Your task to perform on an android device: Add dell xps to the cart on bestbuy, then select checkout. Image 0: 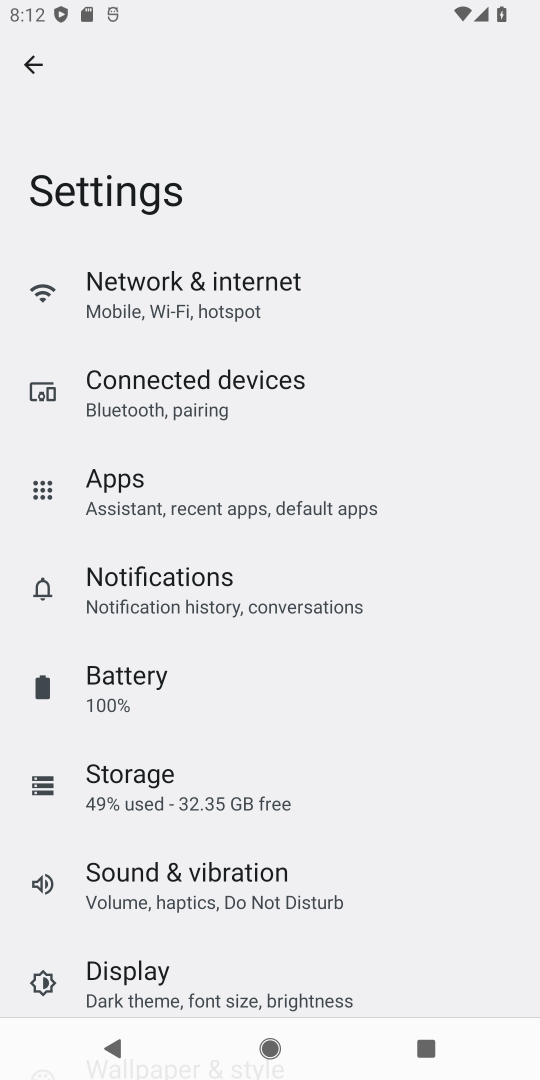
Step 0: press home button
Your task to perform on an android device: Add dell xps to the cart on bestbuy, then select checkout. Image 1: 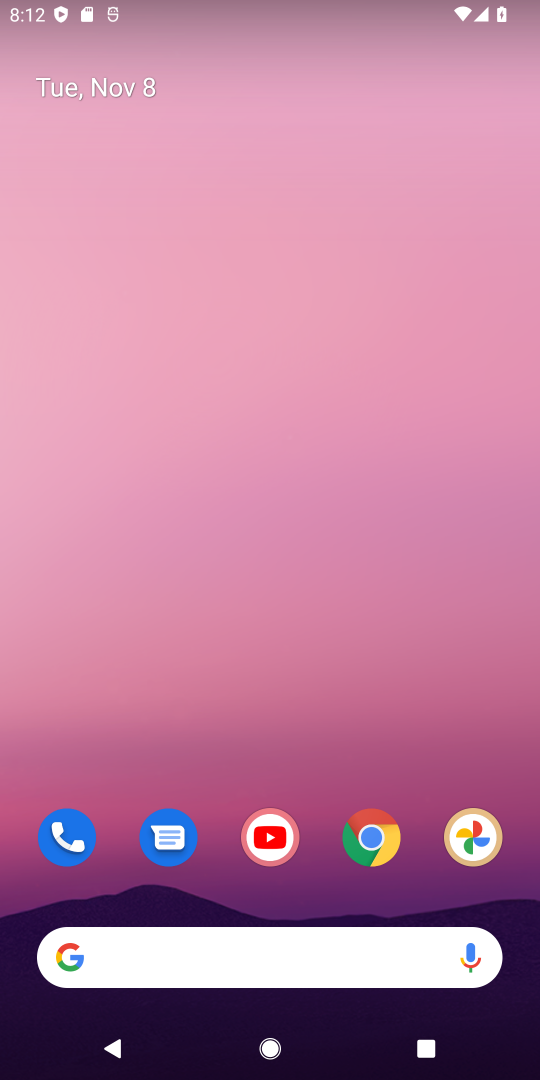
Step 1: click (385, 836)
Your task to perform on an android device: Add dell xps to the cart on bestbuy, then select checkout. Image 2: 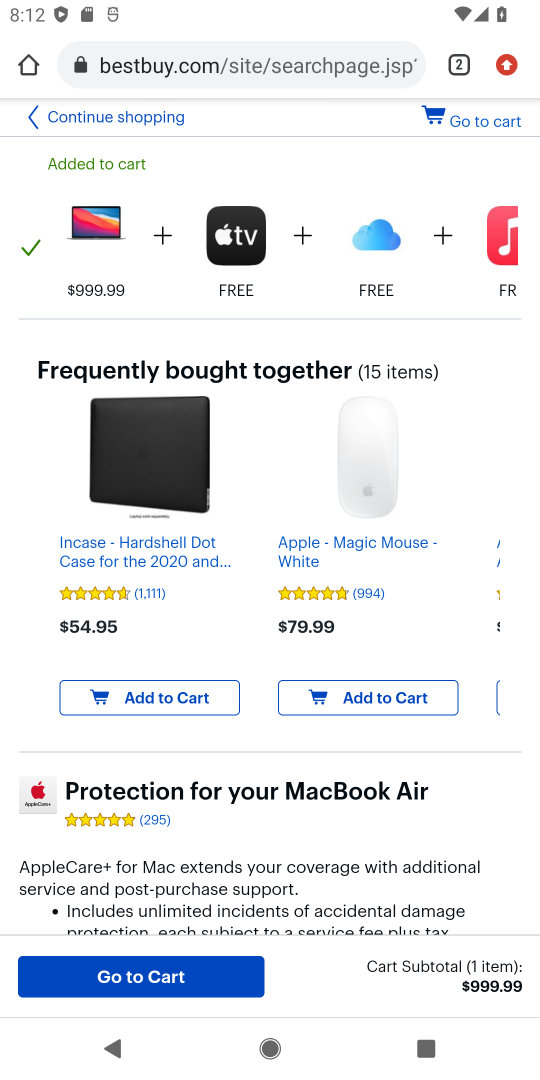
Step 2: click (461, 65)
Your task to perform on an android device: Add dell xps to the cart on bestbuy, then select checkout. Image 3: 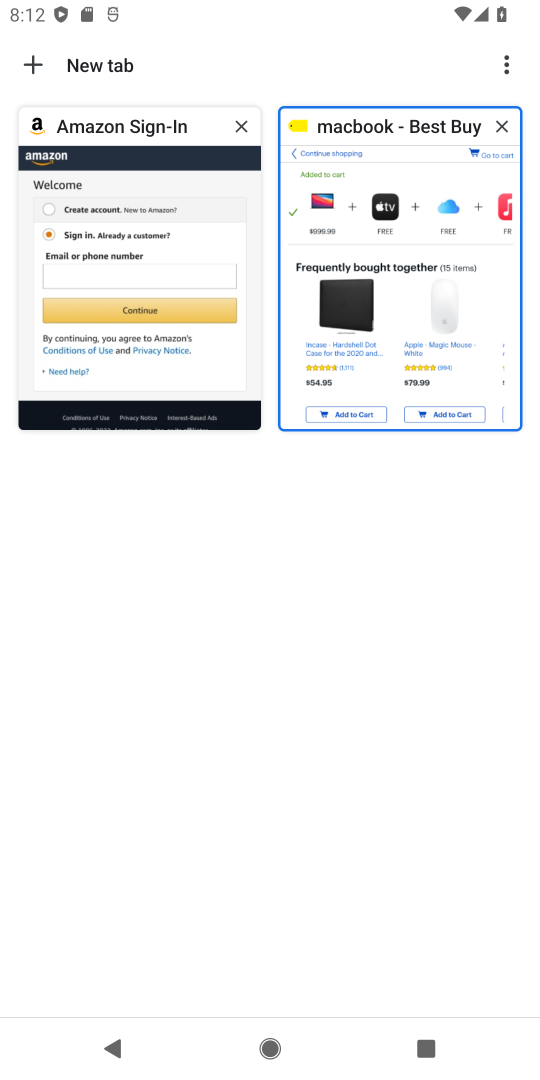
Step 3: click (397, 207)
Your task to perform on an android device: Add dell xps to the cart on bestbuy, then select checkout. Image 4: 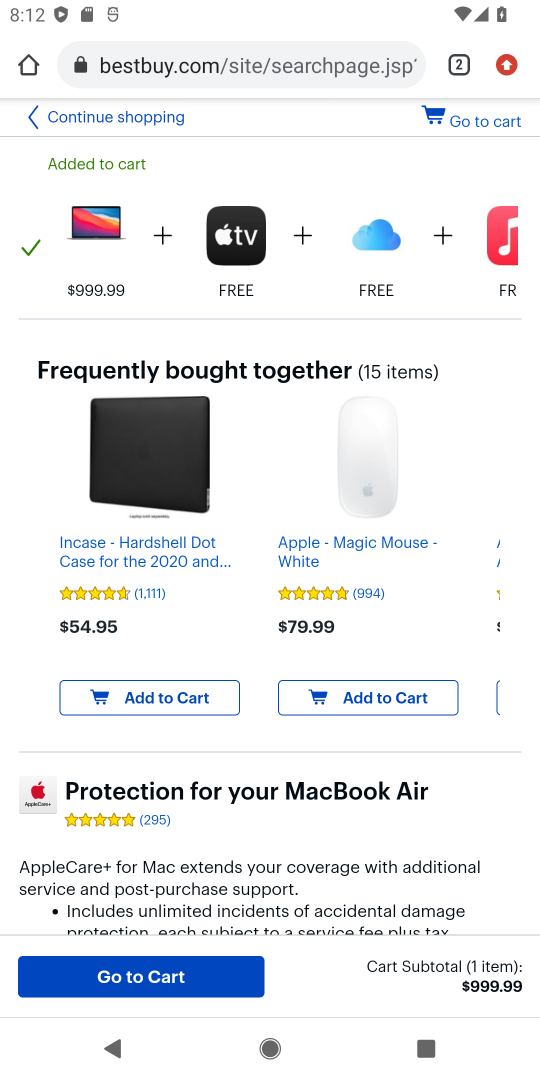
Step 4: click (154, 117)
Your task to perform on an android device: Add dell xps to the cart on bestbuy, then select checkout. Image 5: 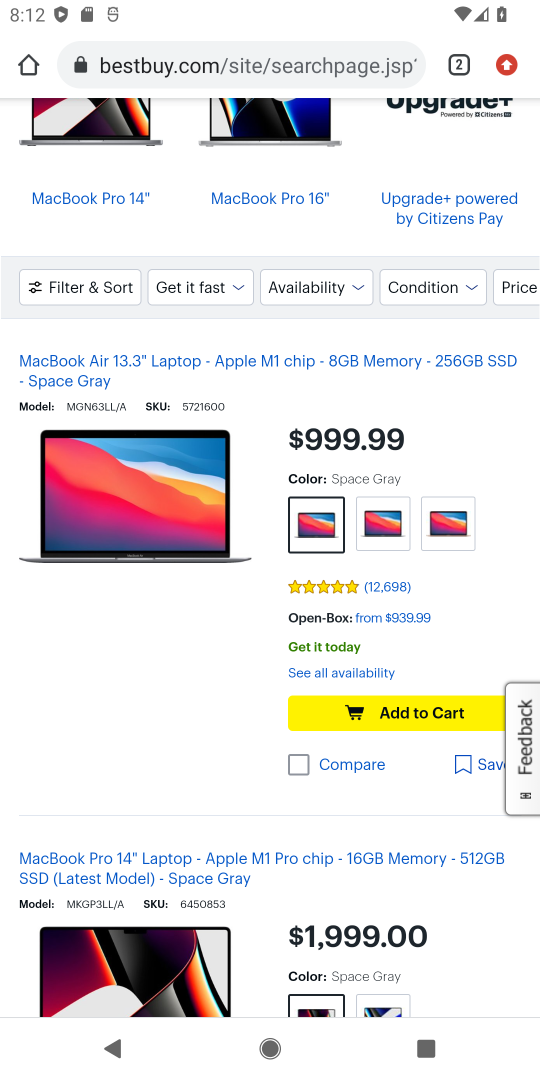
Step 5: drag from (181, 168) to (159, 735)
Your task to perform on an android device: Add dell xps to the cart on bestbuy, then select checkout. Image 6: 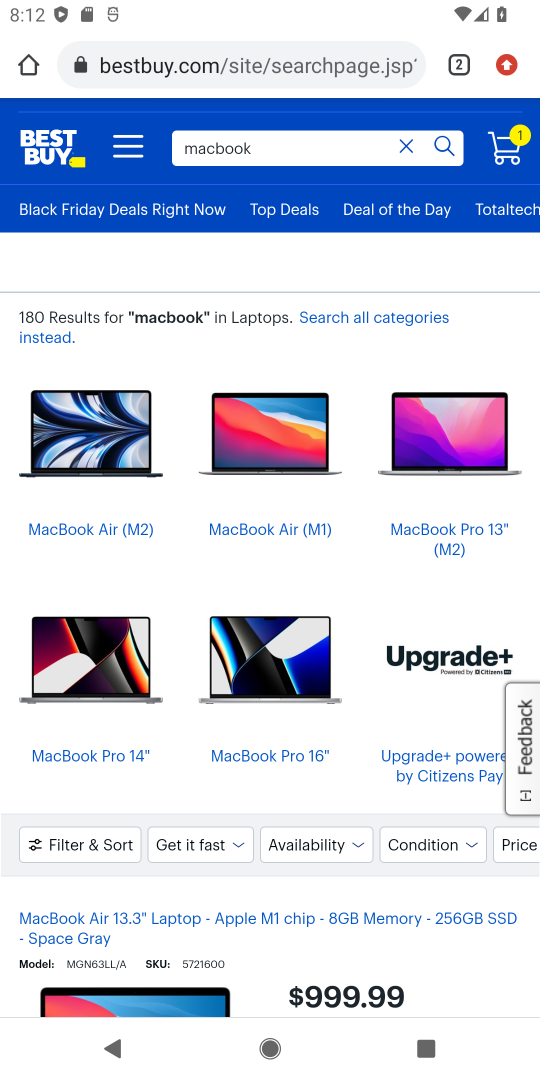
Step 6: click (403, 148)
Your task to perform on an android device: Add dell xps to the cart on bestbuy, then select checkout. Image 7: 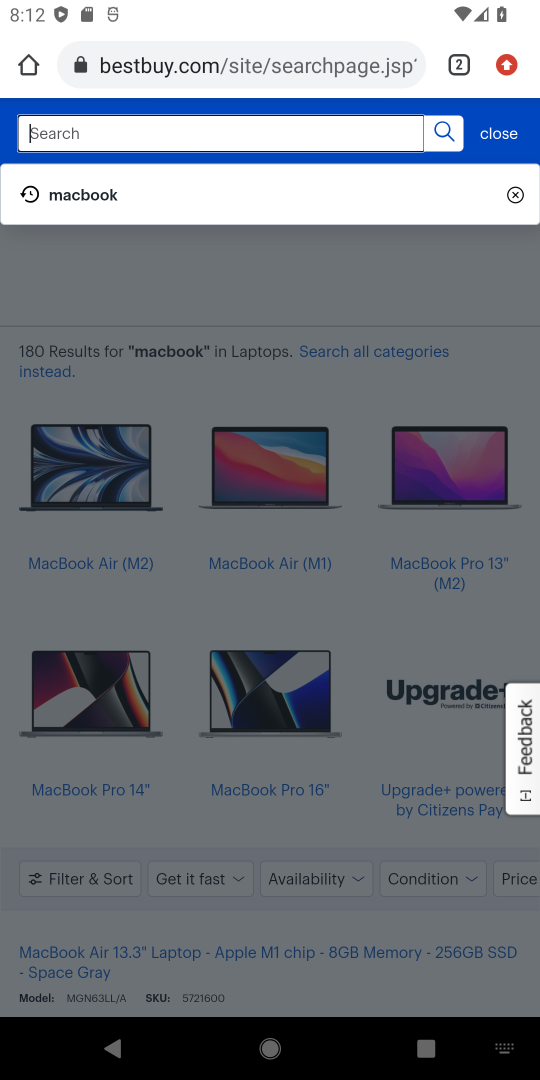
Step 7: type "dell xps"
Your task to perform on an android device: Add dell xps to the cart on bestbuy, then select checkout. Image 8: 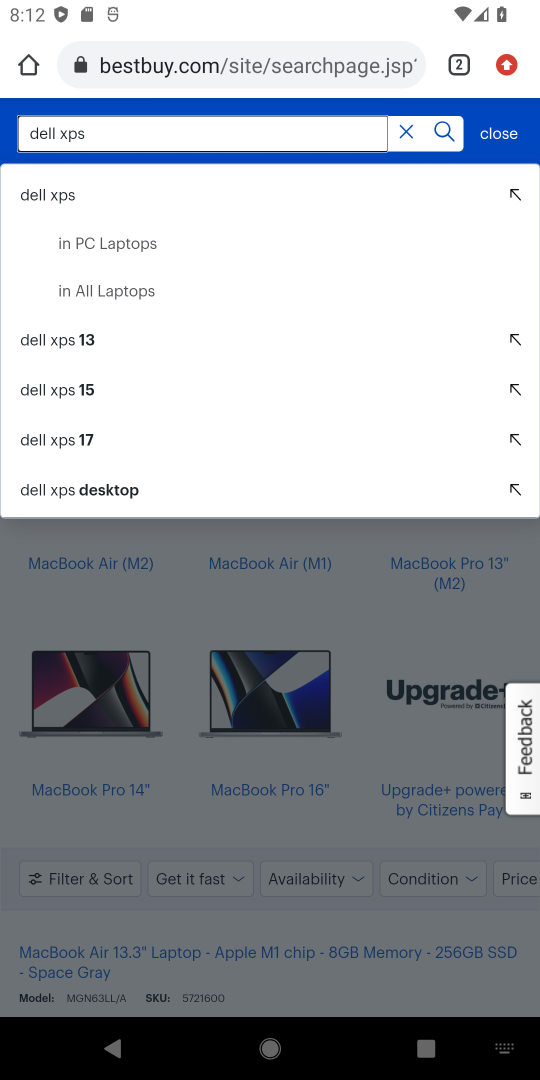
Step 8: click (66, 197)
Your task to perform on an android device: Add dell xps to the cart on bestbuy, then select checkout. Image 9: 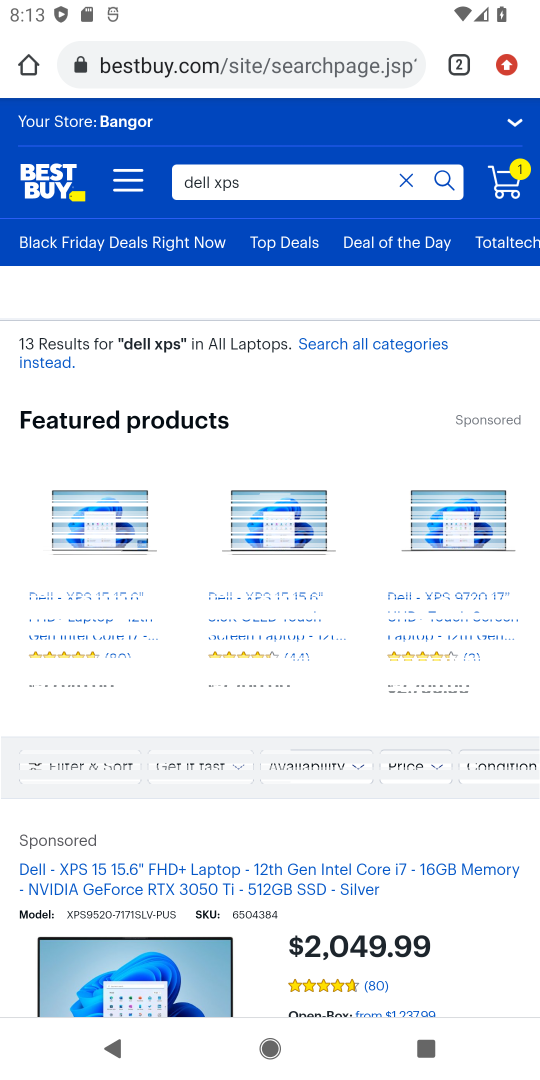
Step 9: drag from (396, 957) to (382, 222)
Your task to perform on an android device: Add dell xps to the cart on bestbuy, then select checkout. Image 10: 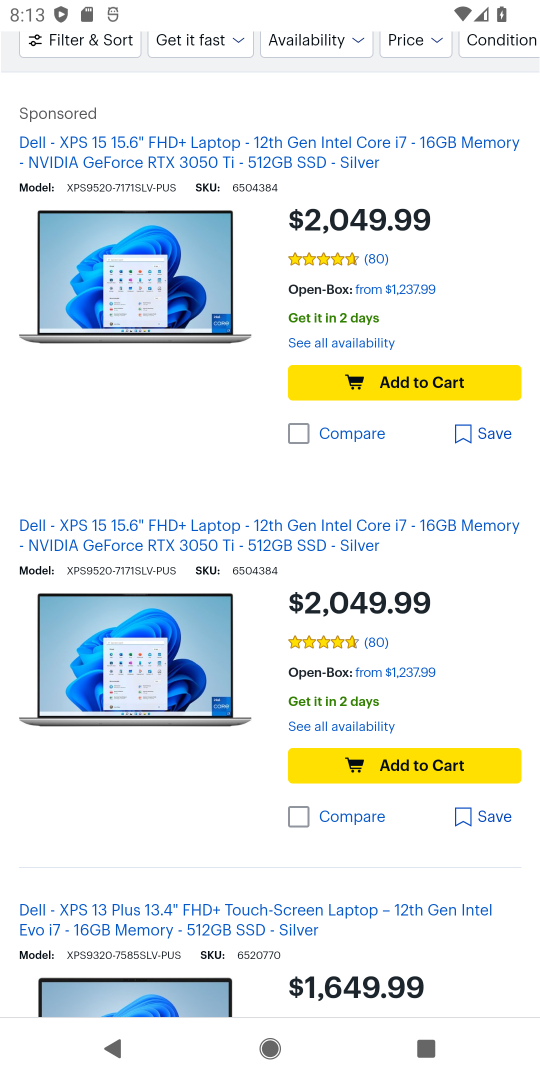
Step 10: click (424, 415)
Your task to perform on an android device: Add dell xps to the cart on bestbuy, then select checkout. Image 11: 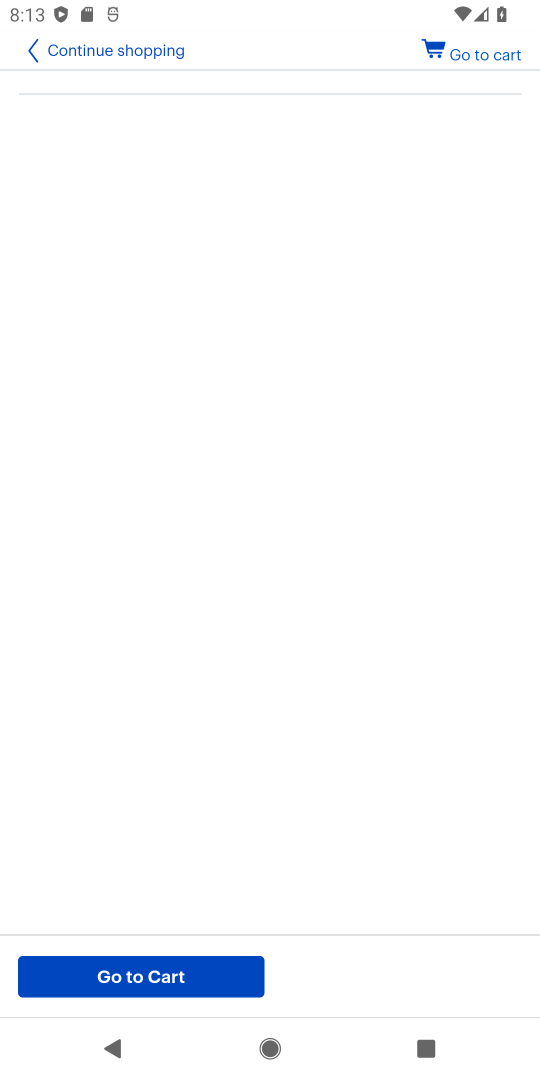
Step 11: drag from (470, 79) to (409, 666)
Your task to perform on an android device: Add dell xps to the cart on bestbuy, then select checkout. Image 12: 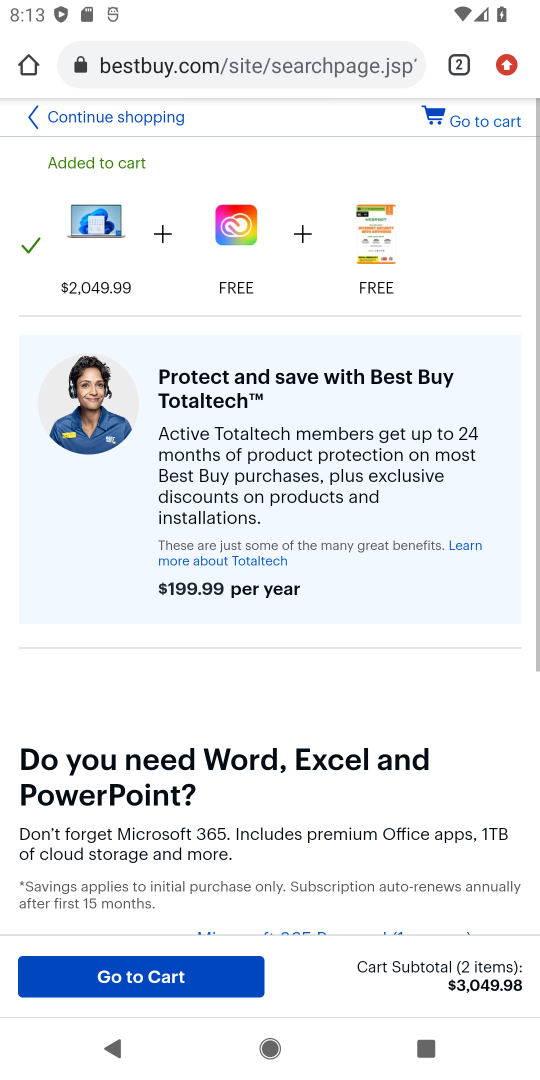
Step 12: click (469, 125)
Your task to perform on an android device: Add dell xps to the cart on bestbuy, then select checkout. Image 13: 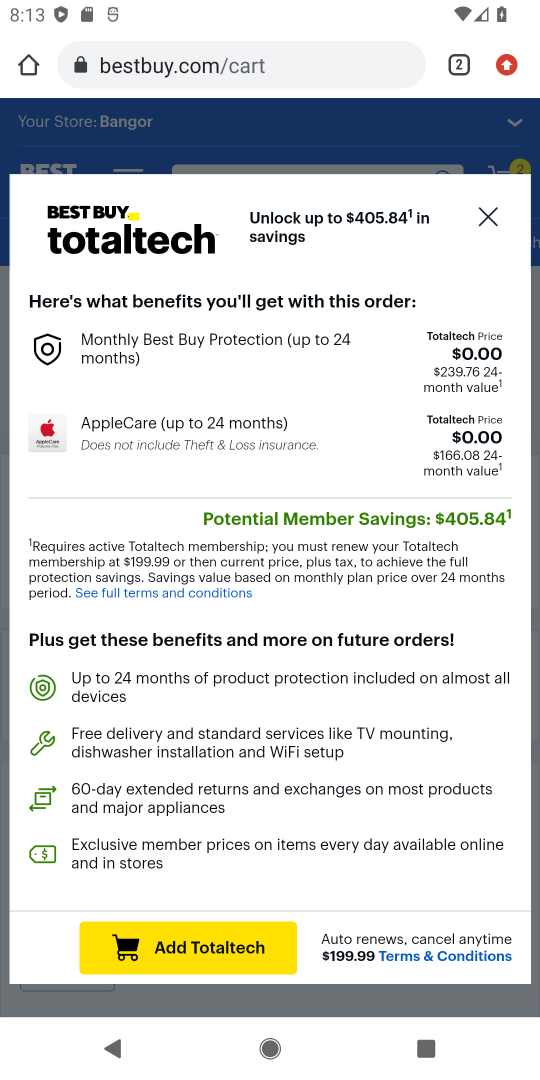
Step 13: click (274, 552)
Your task to perform on an android device: Add dell xps to the cart on bestbuy, then select checkout. Image 14: 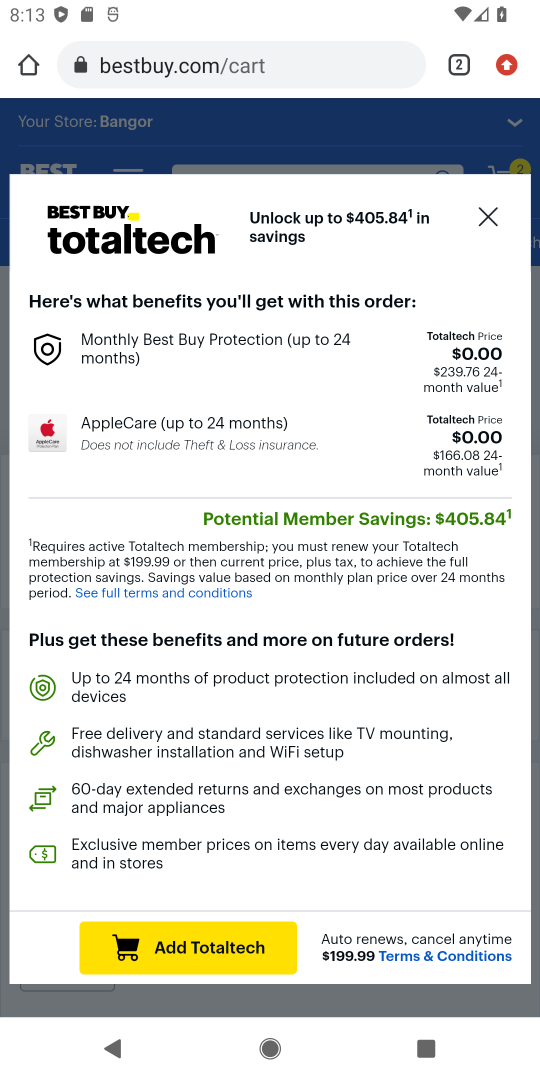
Step 14: click (490, 216)
Your task to perform on an android device: Add dell xps to the cart on bestbuy, then select checkout. Image 15: 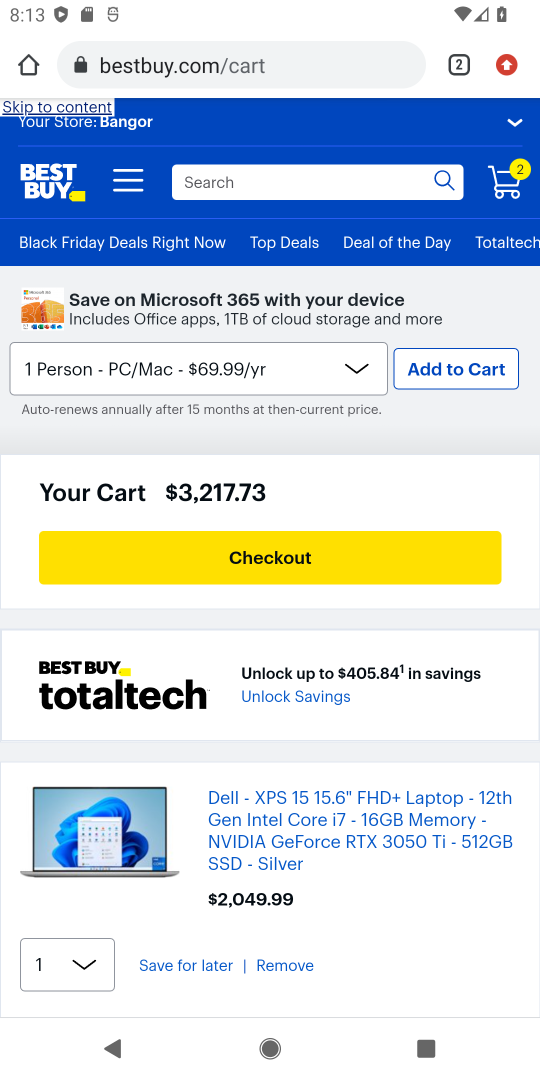
Step 15: click (229, 561)
Your task to perform on an android device: Add dell xps to the cart on bestbuy, then select checkout. Image 16: 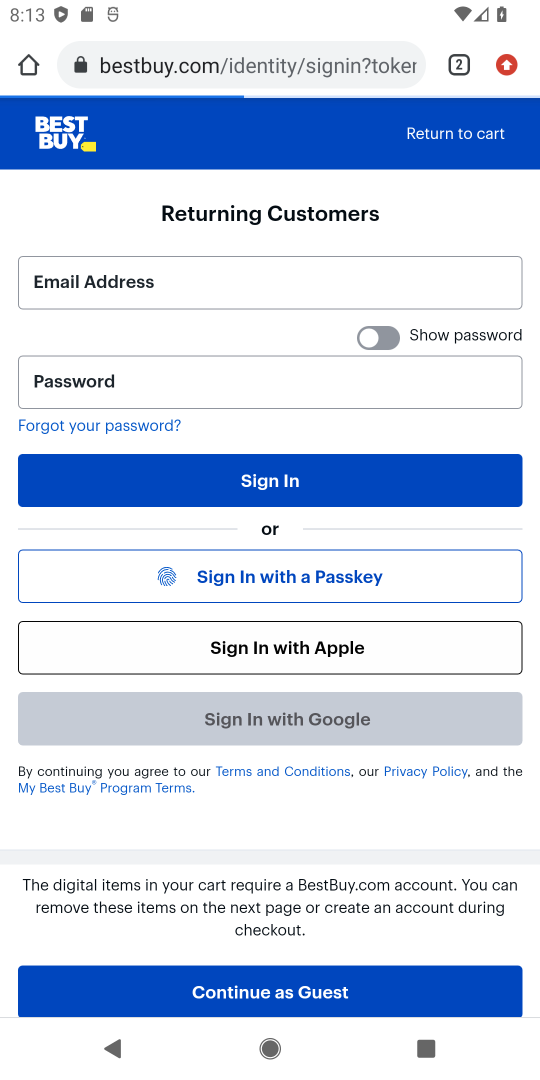
Step 16: task complete